Your task to perform on an android device: Open the calendar and show me this week's events? Image 0: 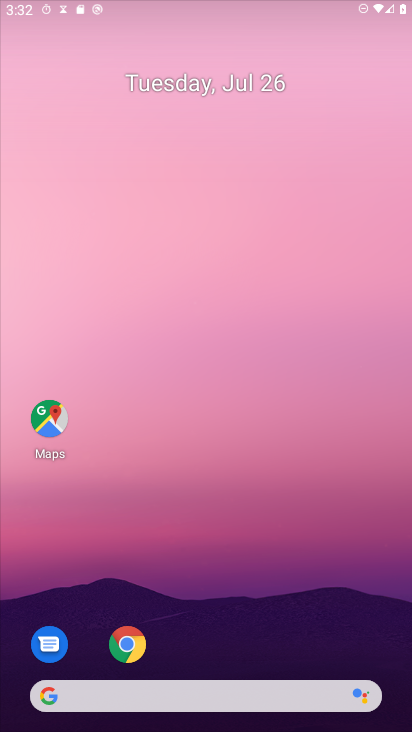
Step 0: press home button
Your task to perform on an android device: Open the calendar and show me this week's events? Image 1: 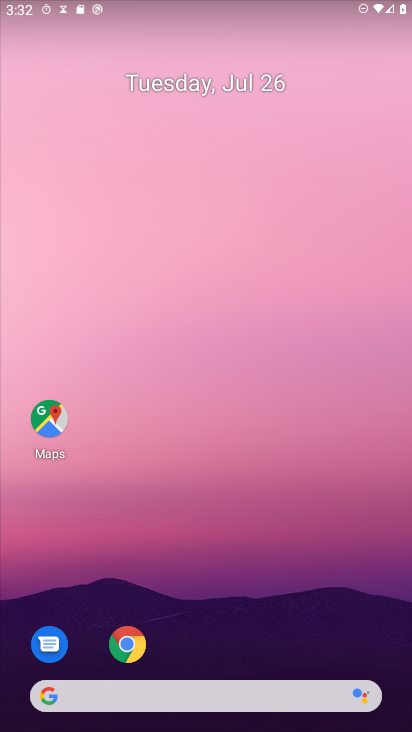
Step 1: drag from (230, 628) to (236, 56)
Your task to perform on an android device: Open the calendar and show me this week's events? Image 2: 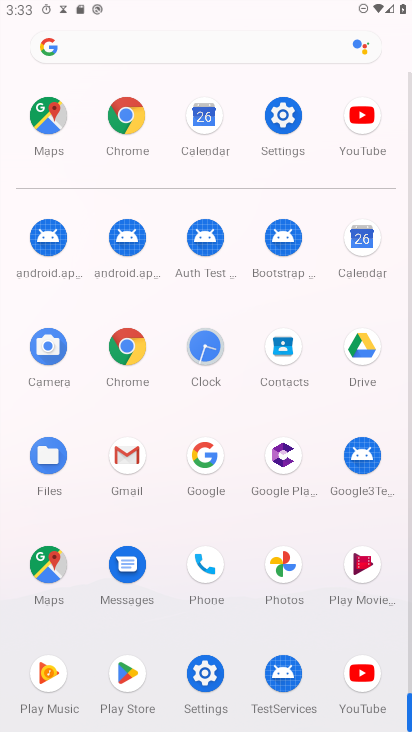
Step 2: click (361, 242)
Your task to perform on an android device: Open the calendar and show me this week's events? Image 3: 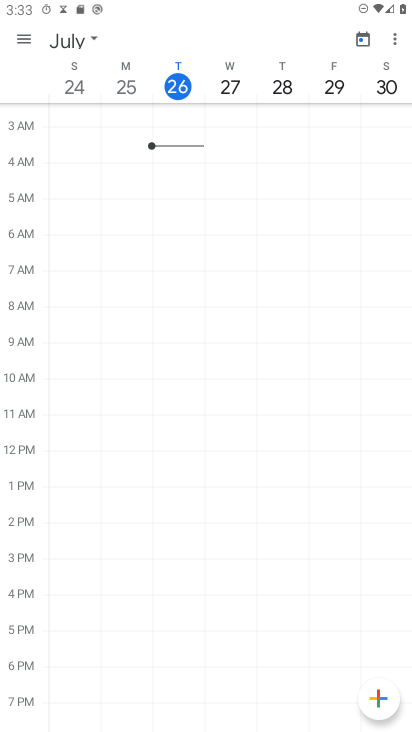
Step 3: task complete